Your task to perform on an android device: toggle improve location accuracy Image 0: 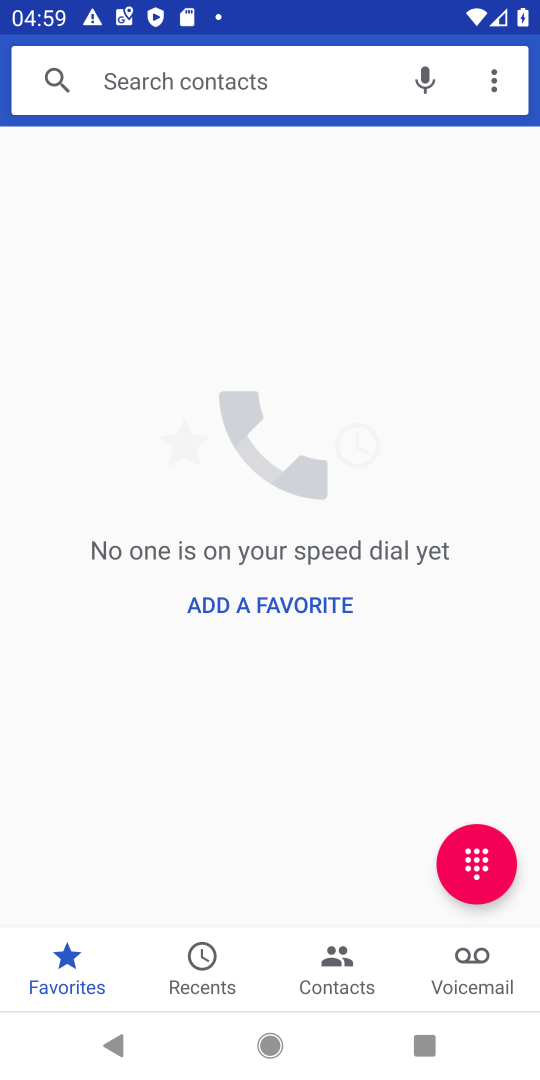
Step 0: press home button
Your task to perform on an android device: toggle improve location accuracy Image 1: 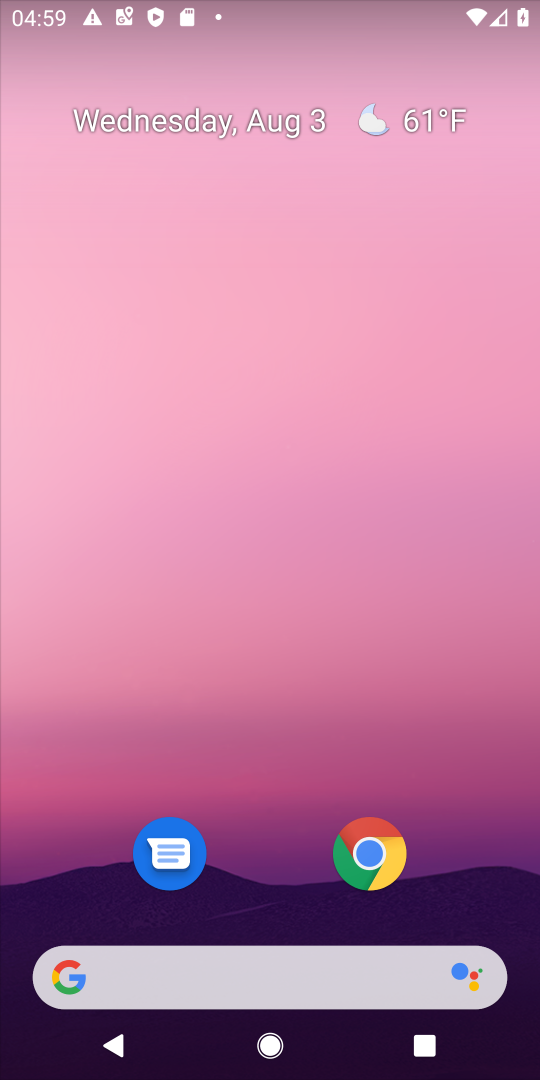
Step 1: drag from (292, 911) to (295, 9)
Your task to perform on an android device: toggle improve location accuracy Image 2: 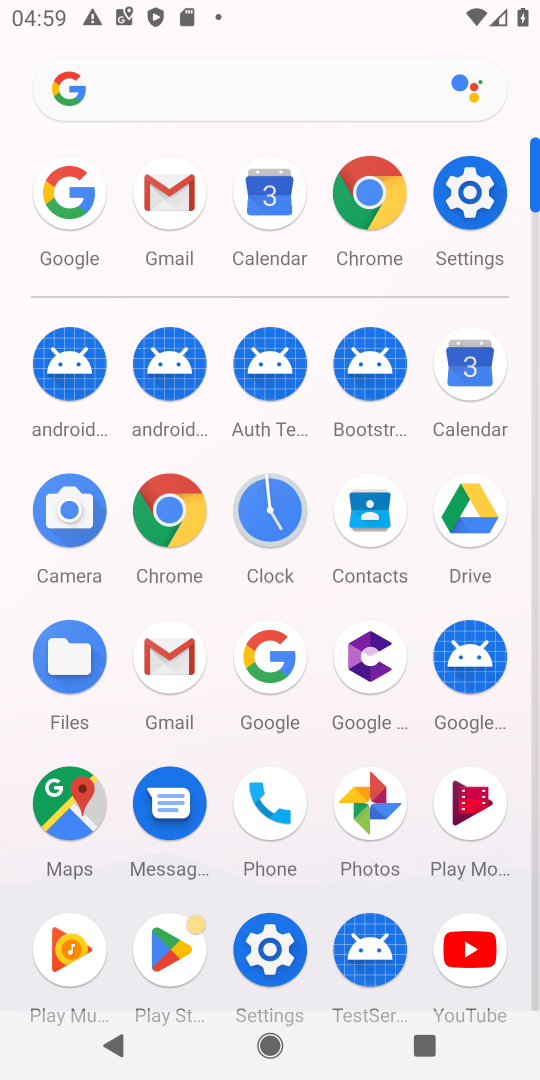
Step 2: click (474, 211)
Your task to perform on an android device: toggle improve location accuracy Image 3: 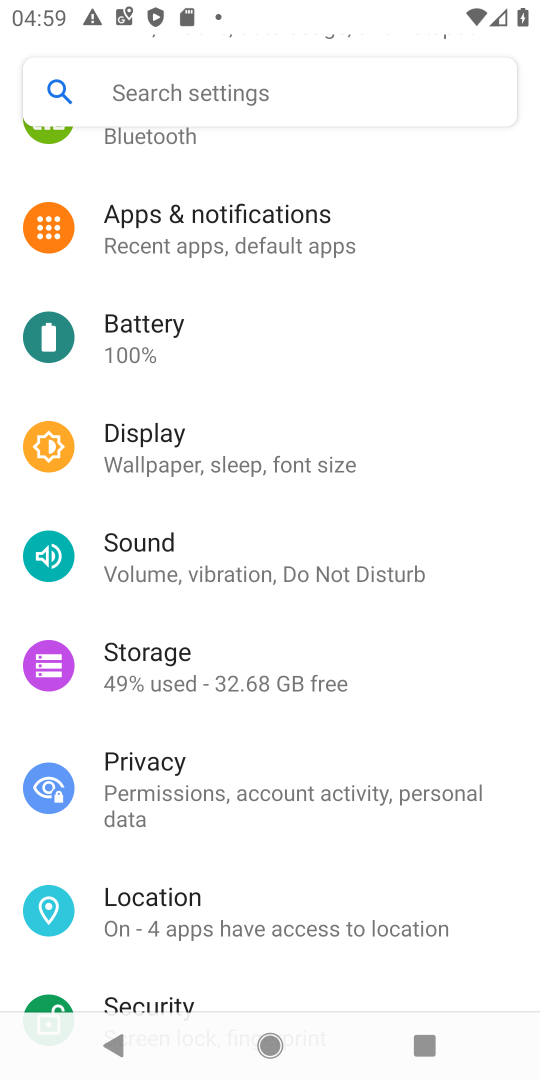
Step 3: click (148, 915)
Your task to perform on an android device: toggle improve location accuracy Image 4: 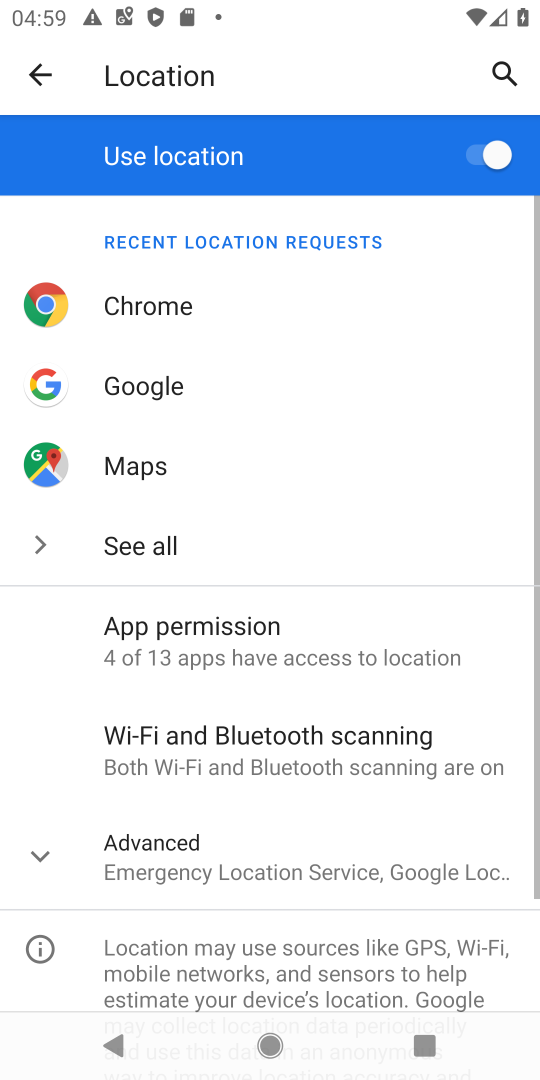
Step 4: click (194, 873)
Your task to perform on an android device: toggle improve location accuracy Image 5: 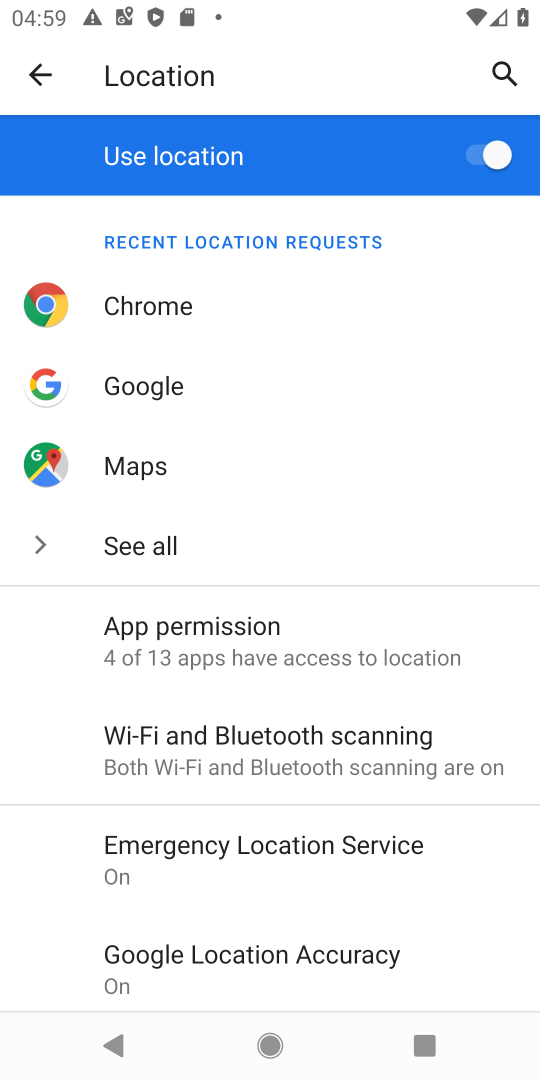
Step 5: click (222, 955)
Your task to perform on an android device: toggle improve location accuracy Image 6: 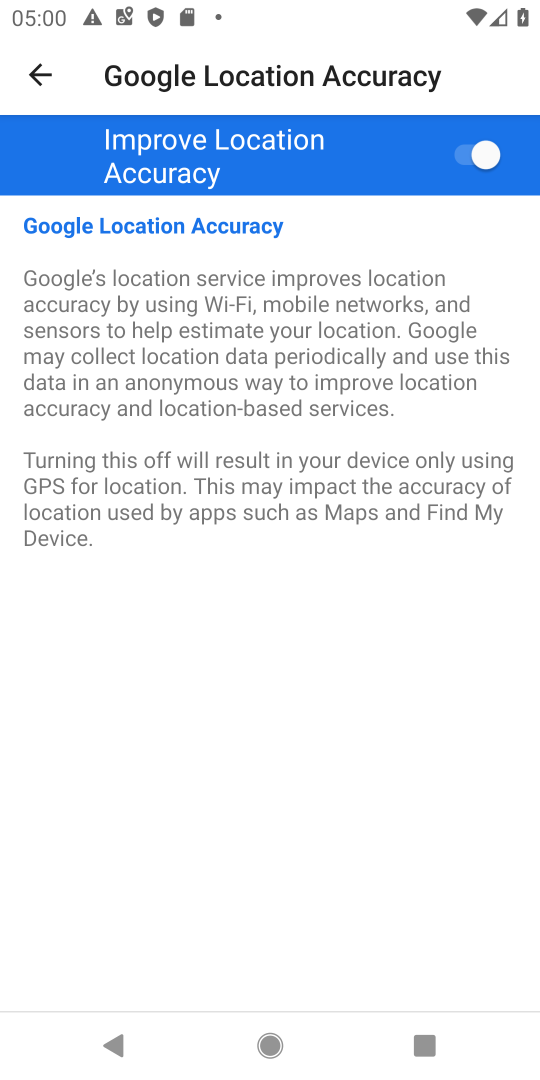
Step 6: click (462, 145)
Your task to perform on an android device: toggle improve location accuracy Image 7: 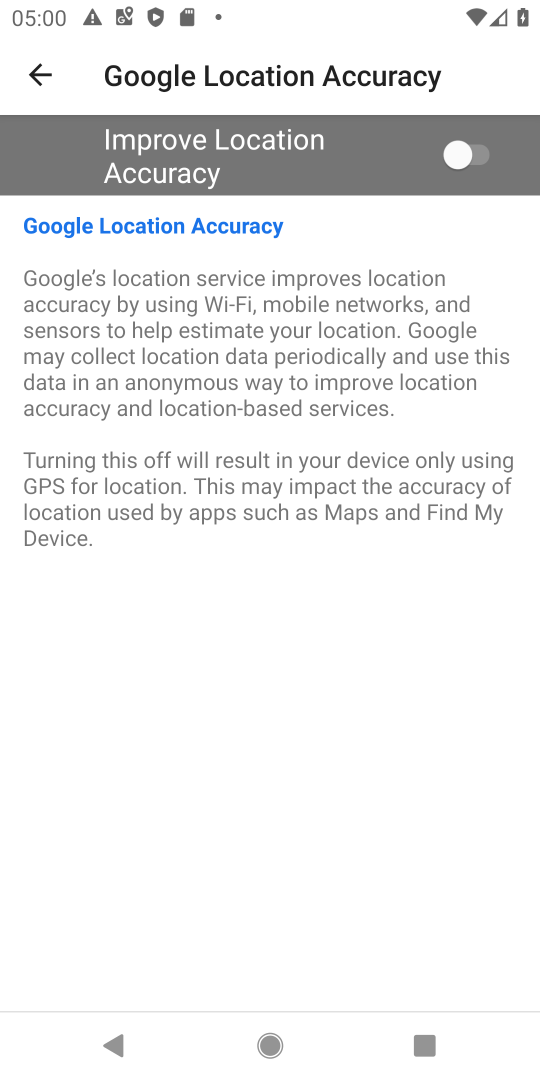
Step 7: task complete